Your task to perform on an android device: delete the emails in spam in the gmail app Image 0: 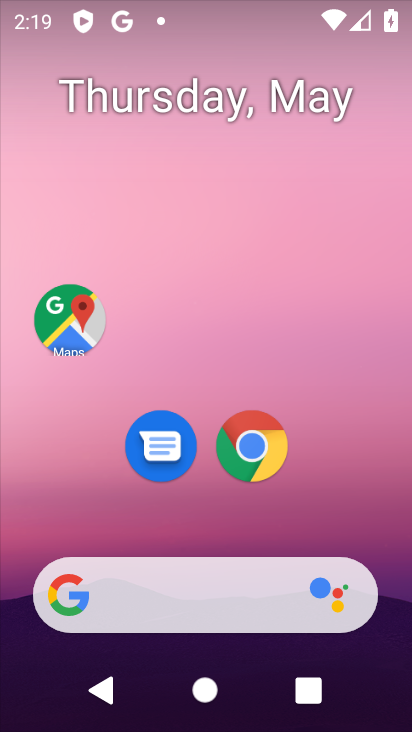
Step 0: drag from (243, 527) to (237, 45)
Your task to perform on an android device: delete the emails in spam in the gmail app Image 1: 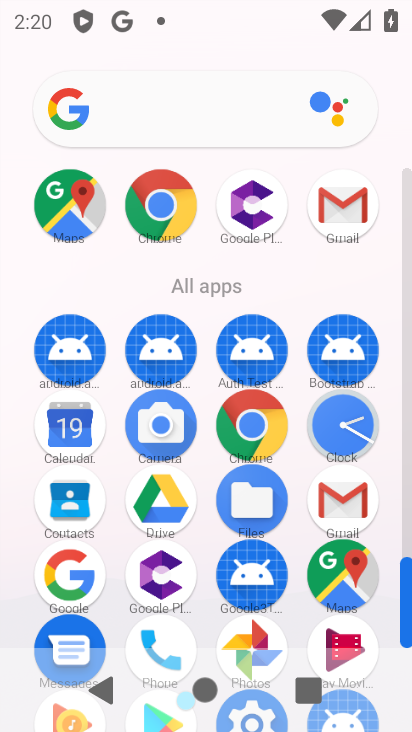
Step 1: click (343, 498)
Your task to perform on an android device: delete the emails in spam in the gmail app Image 2: 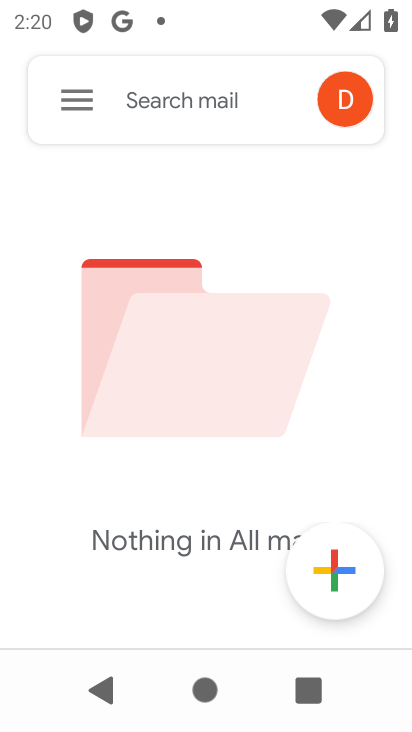
Step 2: click (75, 113)
Your task to perform on an android device: delete the emails in spam in the gmail app Image 3: 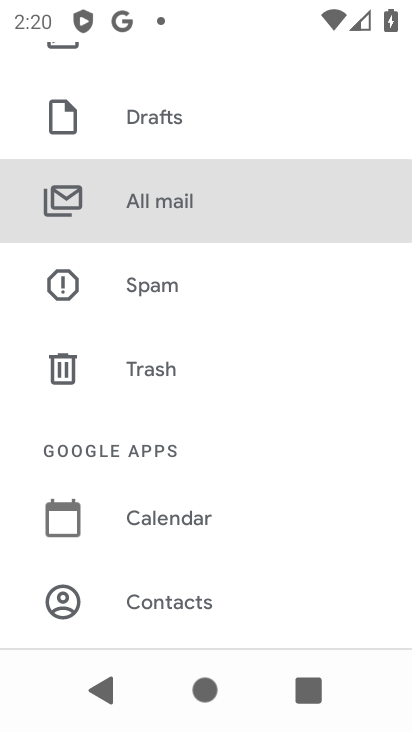
Step 3: click (150, 280)
Your task to perform on an android device: delete the emails in spam in the gmail app Image 4: 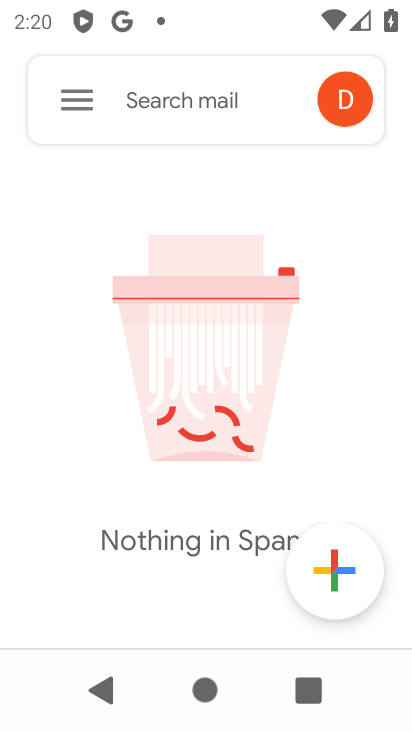
Step 4: task complete